Your task to perform on an android device: Go to network settings Image 0: 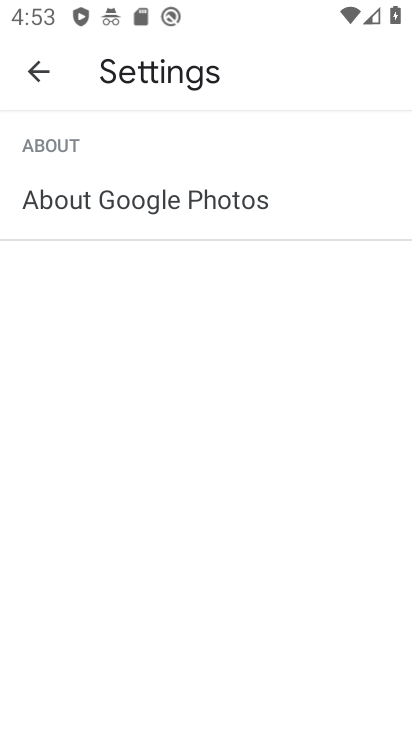
Step 0: press home button
Your task to perform on an android device: Go to network settings Image 1: 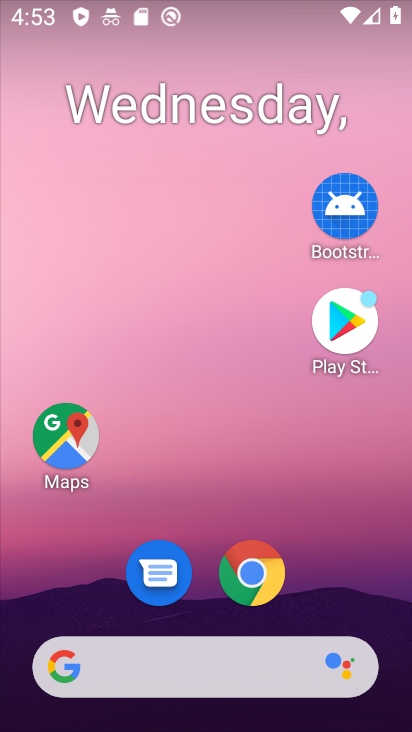
Step 1: drag from (359, 561) to (108, 31)
Your task to perform on an android device: Go to network settings Image 2: 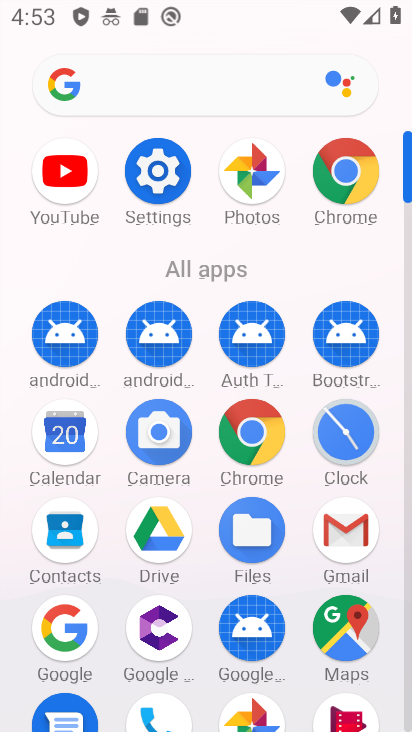
Step 2: click (158, 182)
Your task to perform on an android device: Go to network settings Image 3: 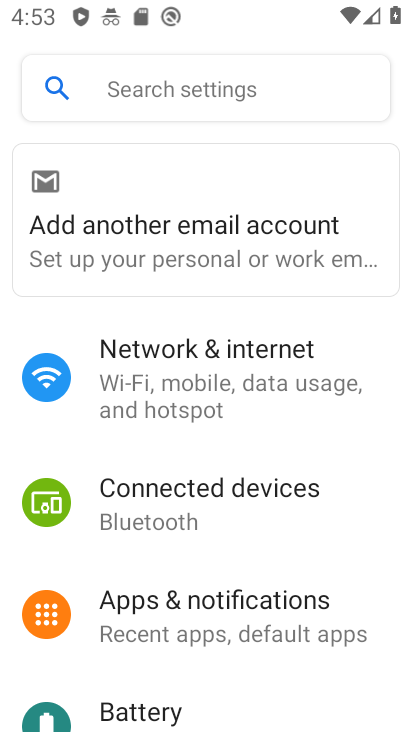
Step 3: click (200, 362)
Your task to perform on an android device: Go to network settings Image 4: 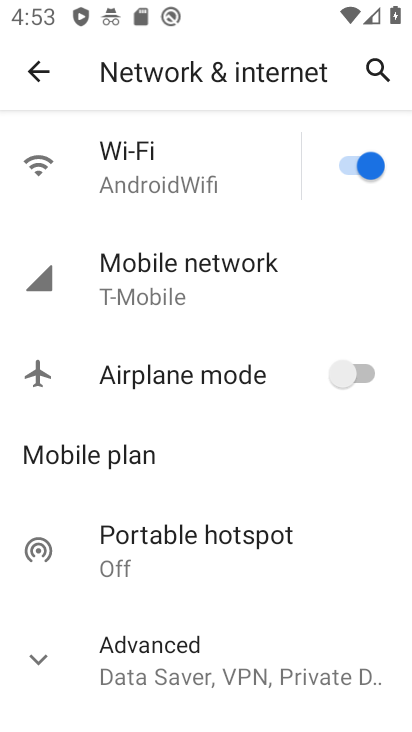
Step 4: task complete